Your task to perform on an android device: Open Google Chrome and open the bookmarks view Image 0: 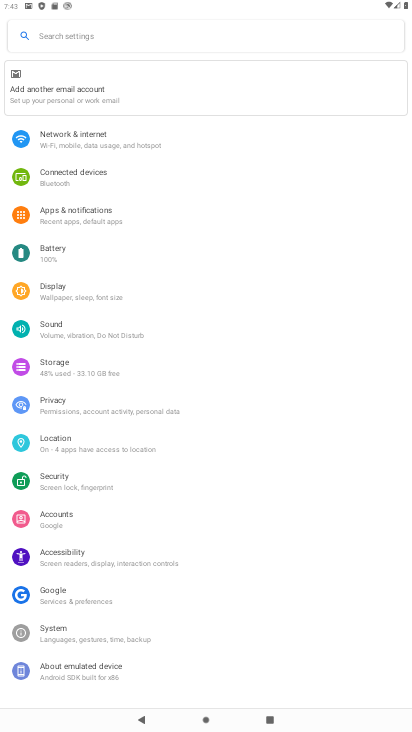
Step 0: press back button
Your task to perform on an android device: Open Google Chrome and open the bookmarks view Image 1: 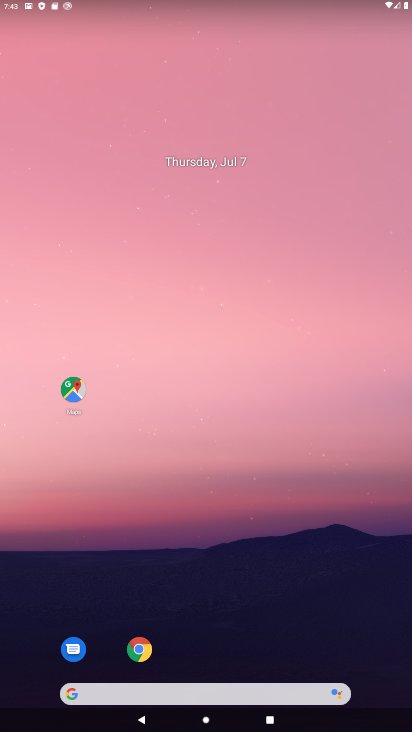
Step 1: drag from (237, 459) to (56, 8)
Your task to perform on an android device: Open Google Chrome and open the bookmarks view Image 2: 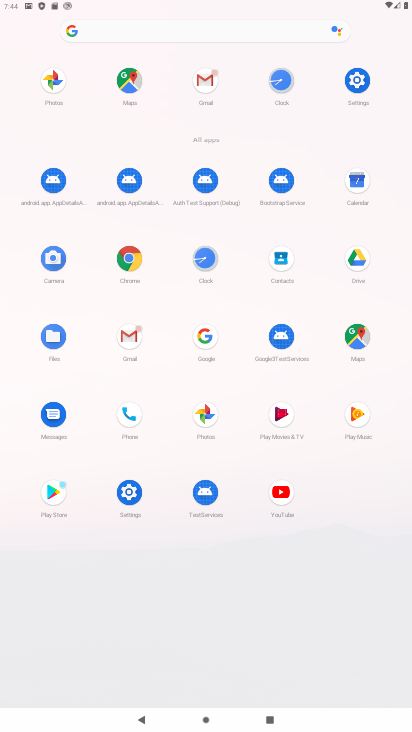
Step 2: click (132, 250)
Your task to perform on an android device: Open Google Chrome and open the bookmarks view Image 3: 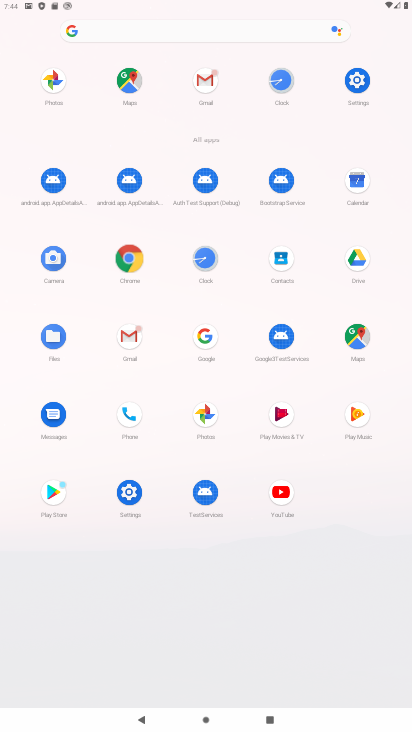
Step 3: click (131, 251)
Your task to perform on an android device: Open Google Chrome and open the bookmarks view Image 4: 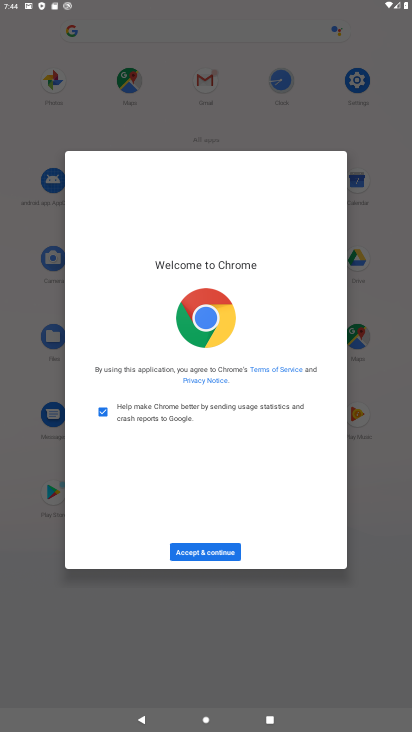
Step 4: click (227, 548)
Your task to perform on an android device: Open Google Chrome and open the bookmarks view Image 5: 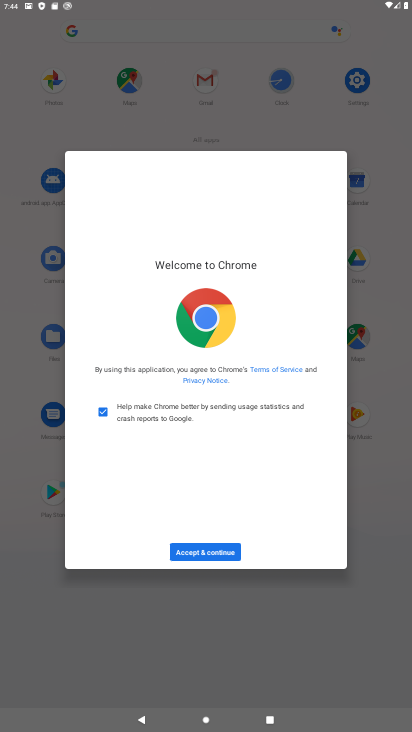
Step 5: click (227, 545)
Your task to perform on an android device: Open Google Chrome and open the bookmarks view Image 6: 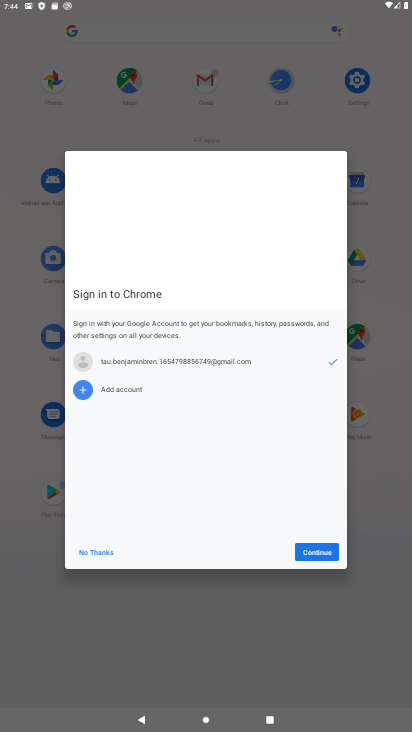
Step 6: click (227, 545)
Your task to perform on an android device: Open Google Chrome and open the bookmarks view Image 7: 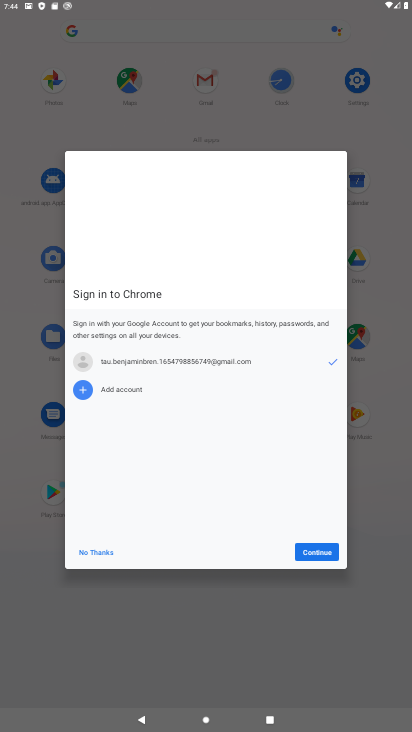
Step 7: click (322, 558)
Your task to perform on an android device: Open Google Chrome and open the bookmarks view Image 8: 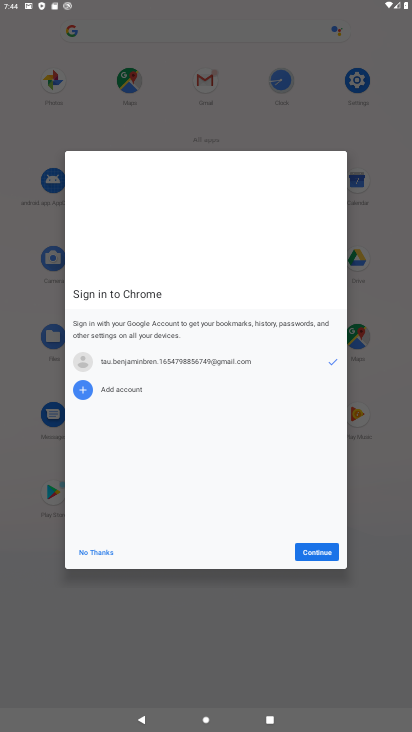
Step 8: click (319, 553)
Your task to perform on an android device: Open Google Chrome and open the bookmarks view Image 9: 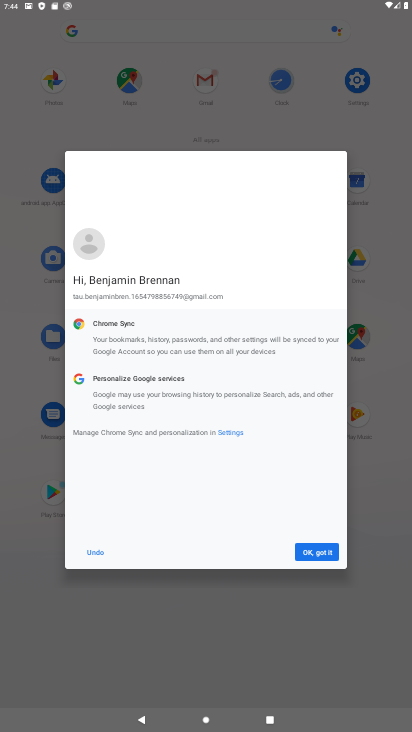
Step 9: click (319, 551)
Your task to perform on an android device: Open Google Chrome and open the bookmarks view Image 10: 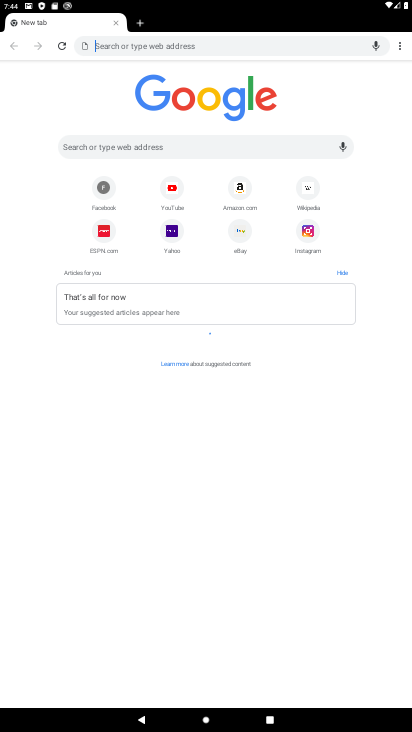
Step 10: drag from (401, 46) to (307, 98)
Your task to perform on an android device: Open Google Chrome and open the bookmarks view Image 11: 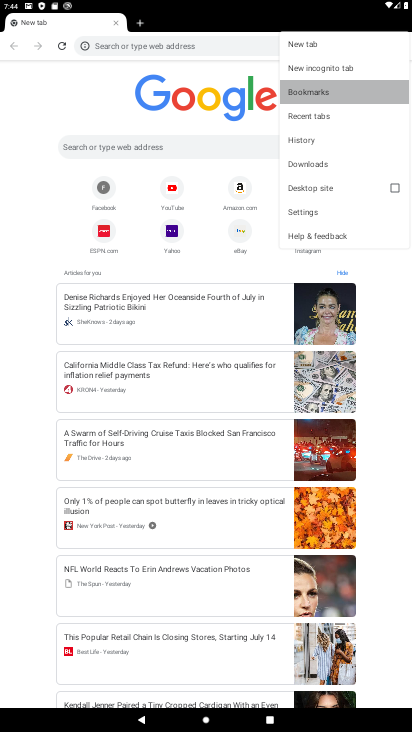
Step 11: click (307, 99)
Your task to perform on an android device: Open Google Chrome and open the bookmarks view Image 12: 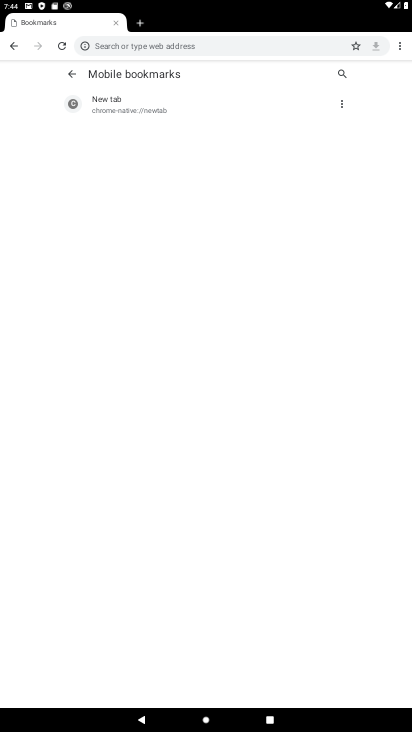
Step 12: task complete